Your task to perform on an android device: Open sound settings Image 0: 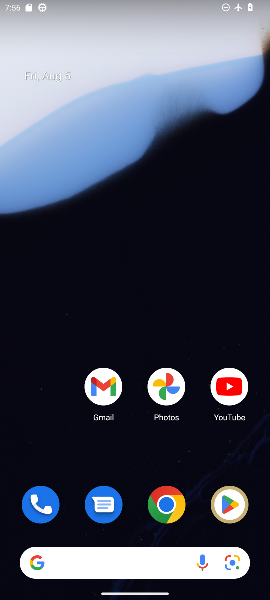
Step 0: drag from (138, 550) to (121, 172)
Your task to perform on an android device: Open sound settings Image 1: 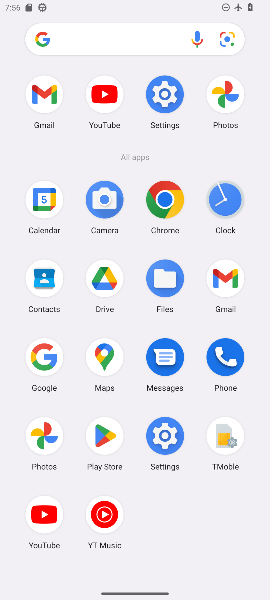
Step 1: click (167, 86)
Your task to perform on an android device: Open sound settings Image 2: 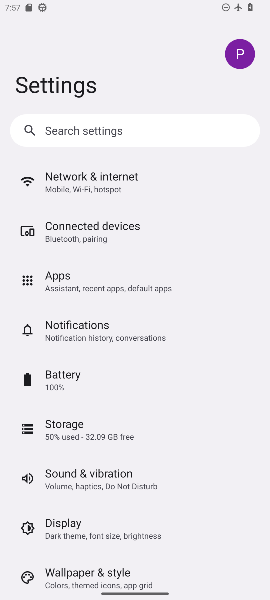
Step 2: drag from (104, 417) to (72, 0)
Your task to perform on an android device: Open sound settings Image 3: 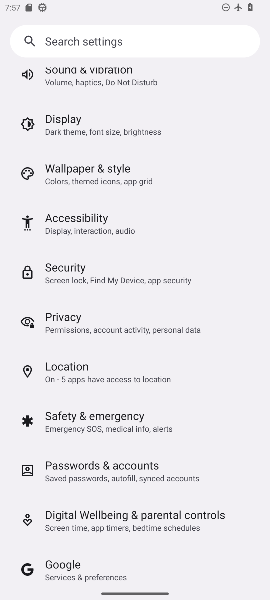
Step 3: click (79, 81)
Your task to perform on an android device: Open sound settings Image 4: 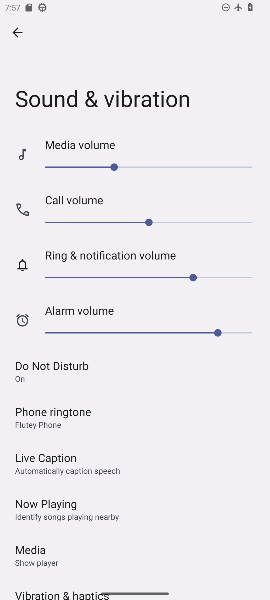
Step 4: task complete